Your task to perform on an android device: see tabs open on other devices in the chrome app Image 0: 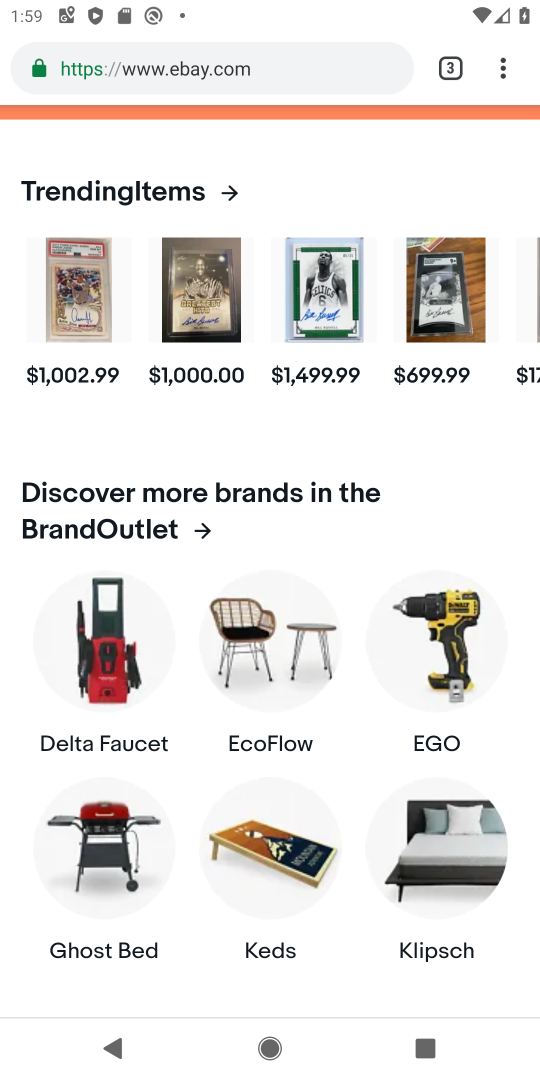
Step 0: press home button
Your task to perform on an android device: see tabs open on other devices in the chrome app Image 1: 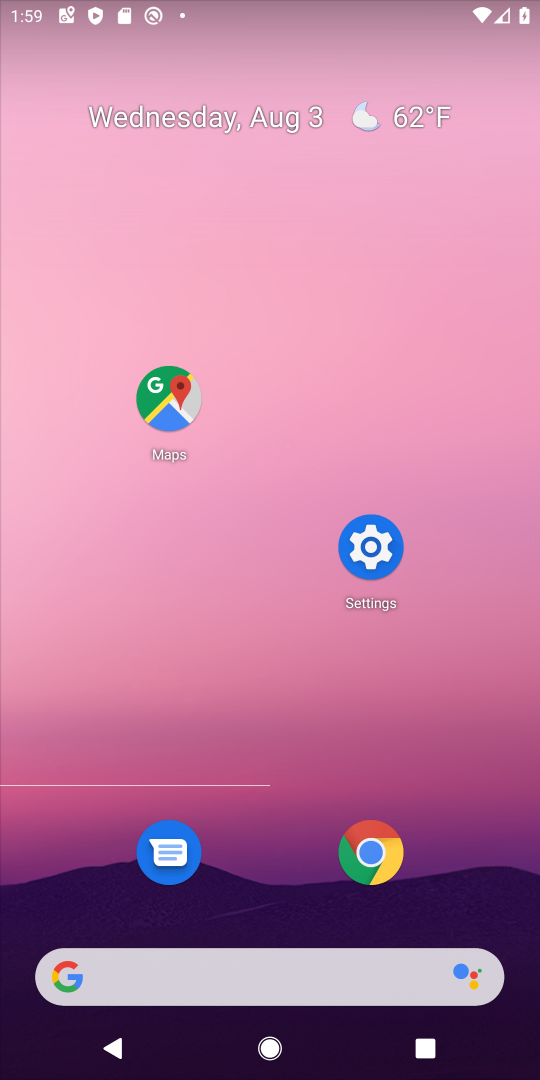
Step 1: click (369, 850)
Your task to perform on an android device: see tabs open on other devices in the chrome app Image 2: 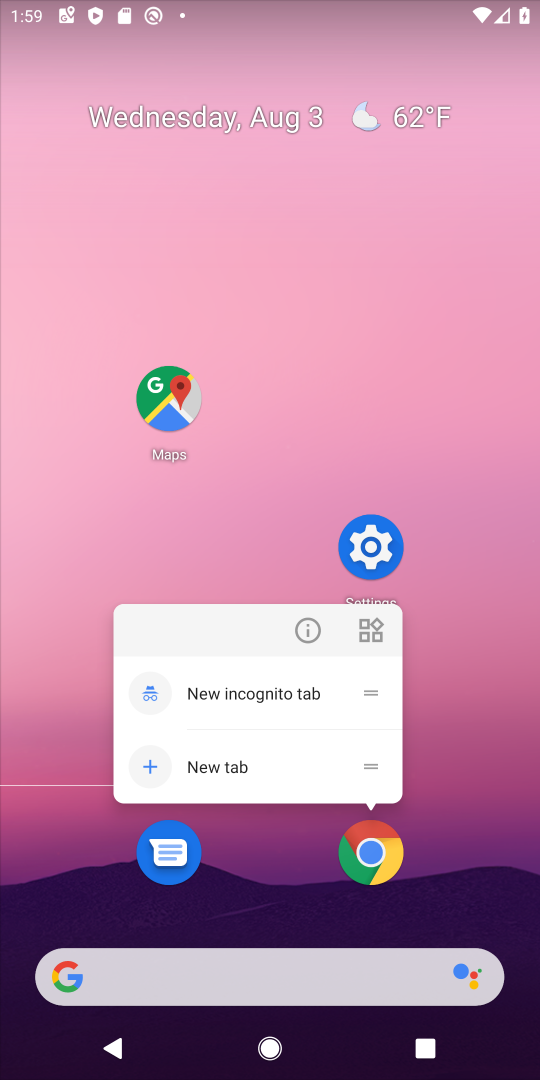
Step 2: click (369, 850)
Your task to perform on an android device: see tabs open on other devices in the chrome app Image 3: 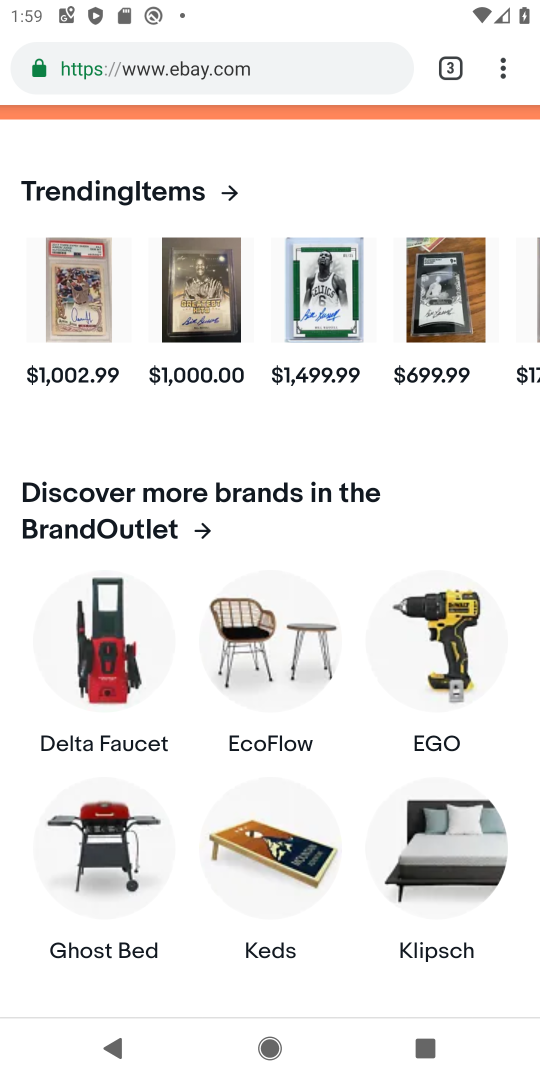
Step 3: task complete